Your task to perform on an android device: open a new tab in the chrome app Image 0: 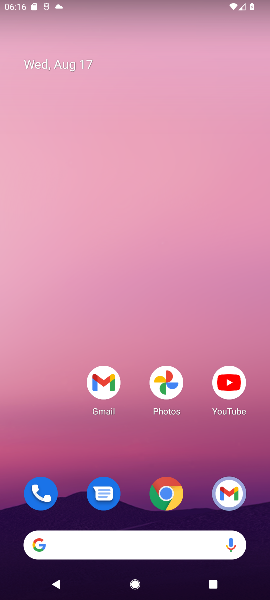
Step 0: press home button
Your task to perform on an android device: open a new tab in the chrome app Image 1: 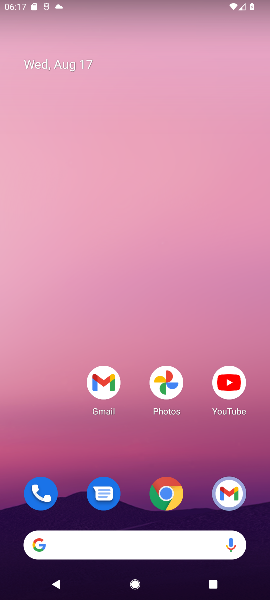
Step 1: click (156, 502)
Your task to perform on an android device: open a new tab in the chrome app Image 2: 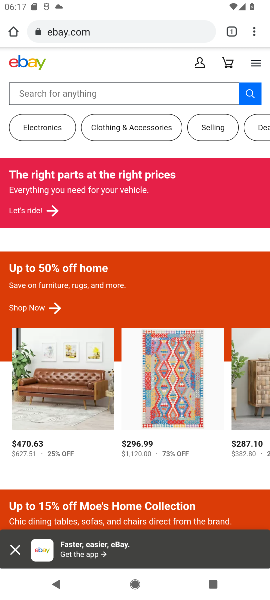
Step 2: click (235, 33)
Your task to perform on an android device: open a new tab in the chrome app Image 3: 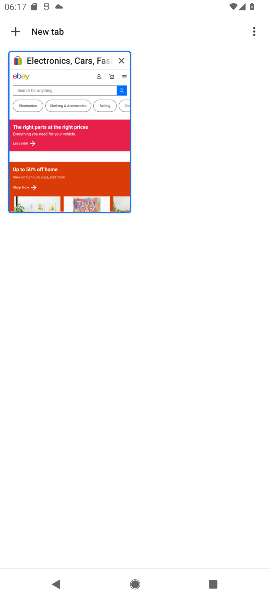
Step 3: click (19, 38)
Your task to perform on an android device: open a new tab in the chrome app Image 4: 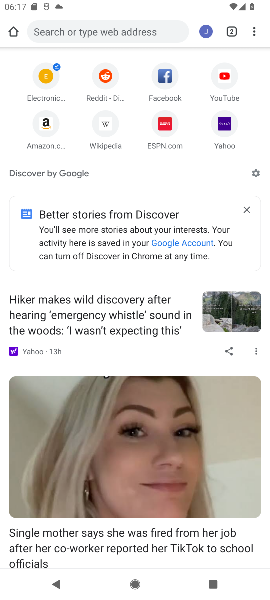
Step 4: task complete